Your task to perform on an android device: change keyboard looks Image 0: 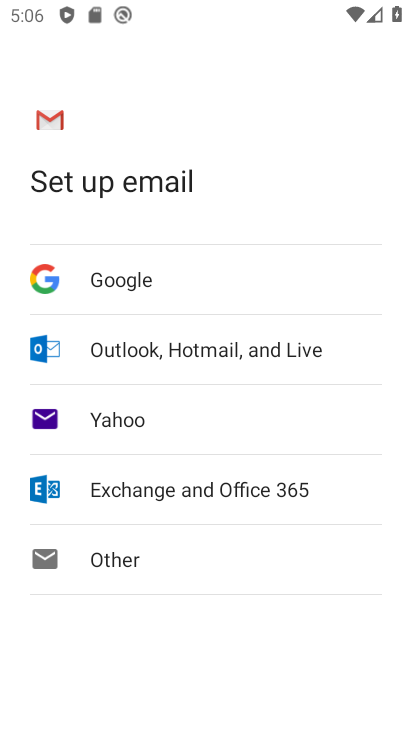
Step 0: press home button
Your task to perform on an android device: change keyboard looks Image 1: 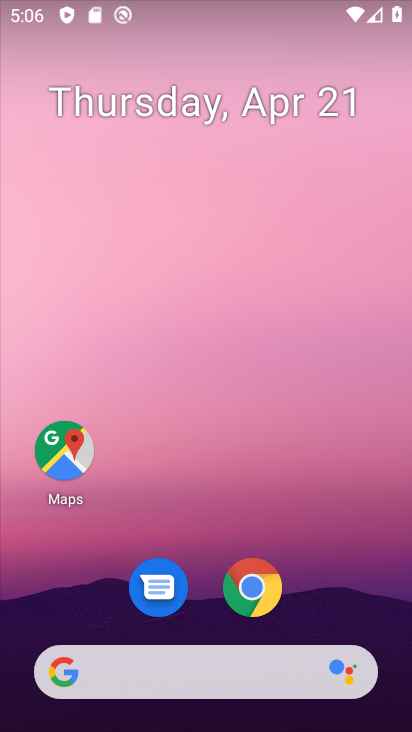
Step 1: drag from (212, 621) to (212, 19)
Your task to perform on an android device: change keyboard looks Image 2: 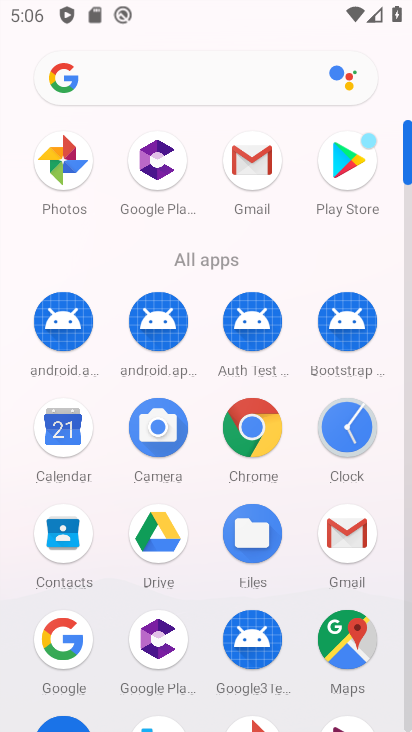
Step 2: drag from (203, 505) to (192, 110)
Your task to perform on an android device: change keyboard looks Image 3: 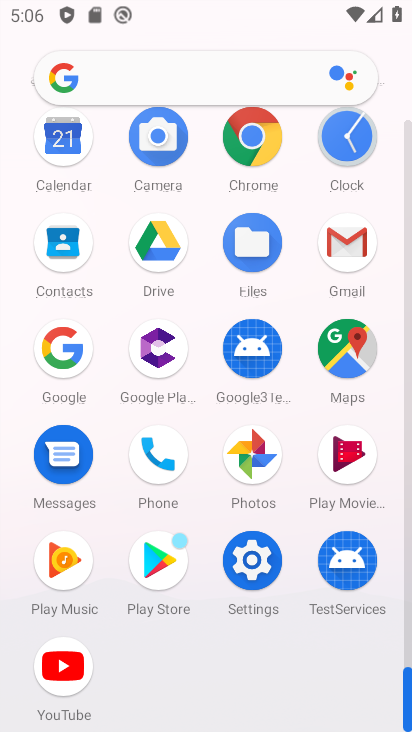
Step 3: click (248, 554)
Your task to perform on an android device: change keyboard looks Image 4: 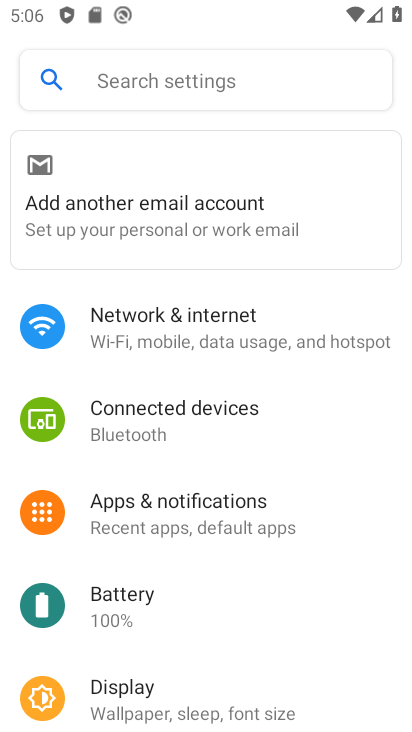
Step 4: drag from (222, 641) to (219, 168)
Your task to perform on an android device: change keyboard looks Image 5: 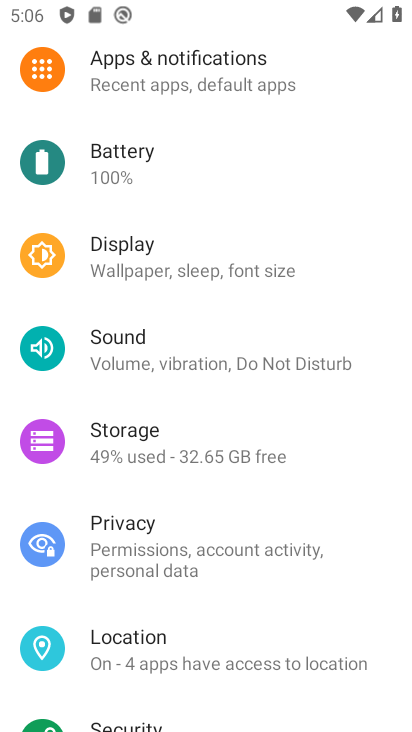
Step 5: drag from (197, 663) to (230, 138)
Your task to perform on an android device: change keyboard looks Image 6: 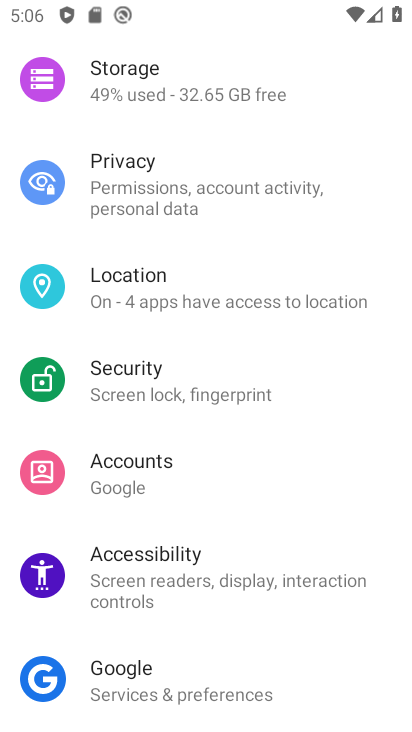
Step 6: drag from (189, 667) to (193, 134)
Your task to perform on an android device: change keyboard looks Image 7: 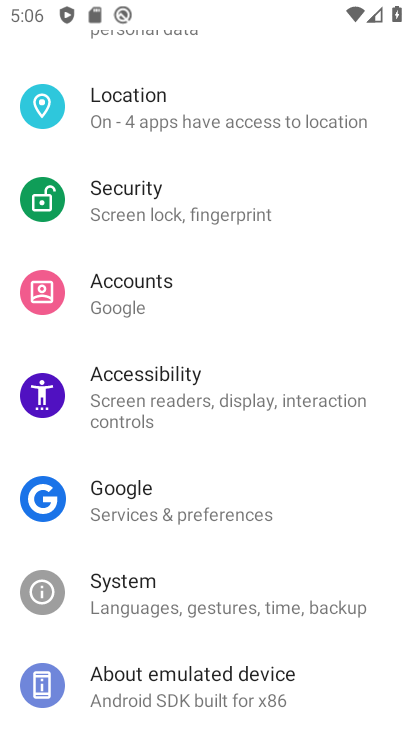
Step 7: click (174, 593)
Your task to perform on an android device: change keyboard looks Image 8: 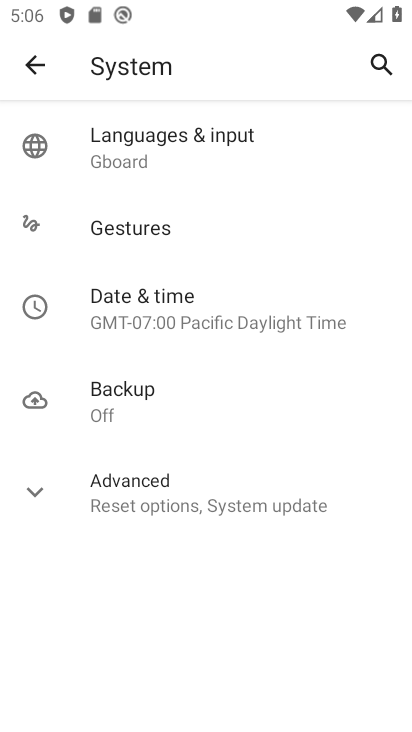
Step 8: click (151, 148)
Your task to perform on an android device: change keyboard looks Image 9: 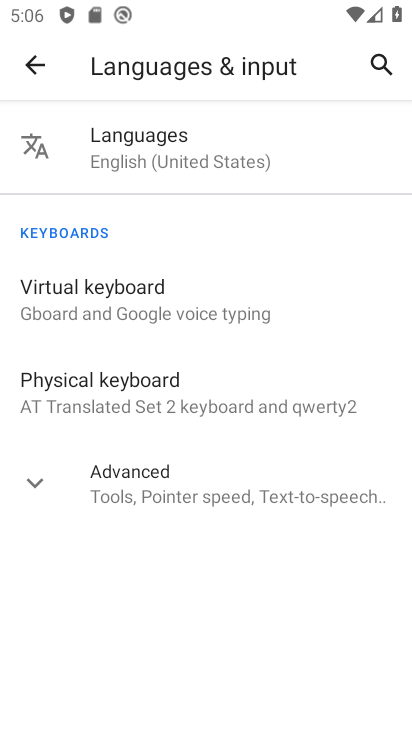
Step 9: click (164, 303)
Your task to perform on an android device: change keyboard looks Image 10: 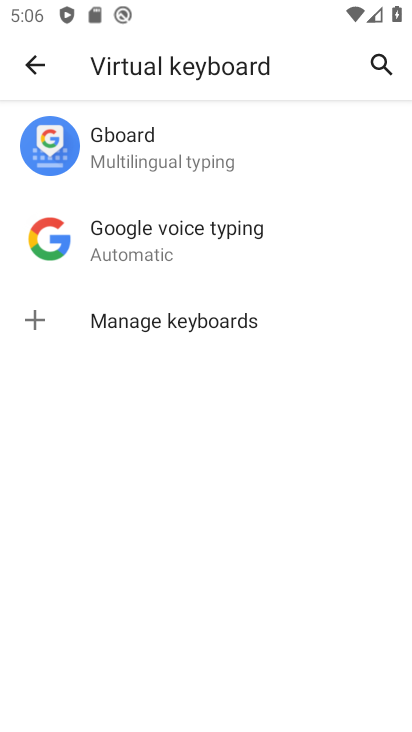
Step 10: click (165, 142)
Your task to perform on an android device: change keyboard looks Image 11: 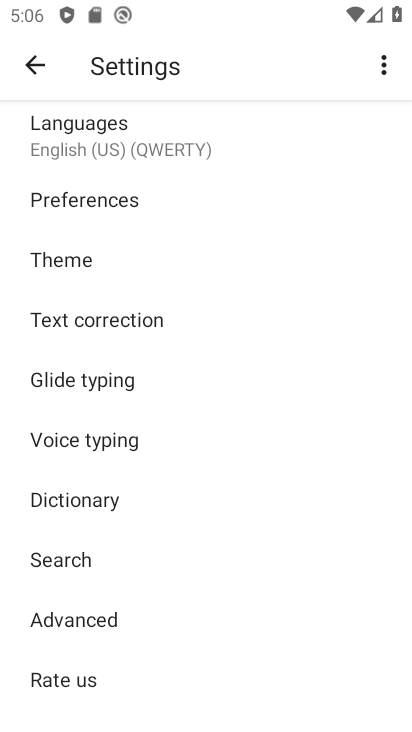
Step 11: click (91, 258)
Your task to perform on an android device: change keyboard looks Image 12: 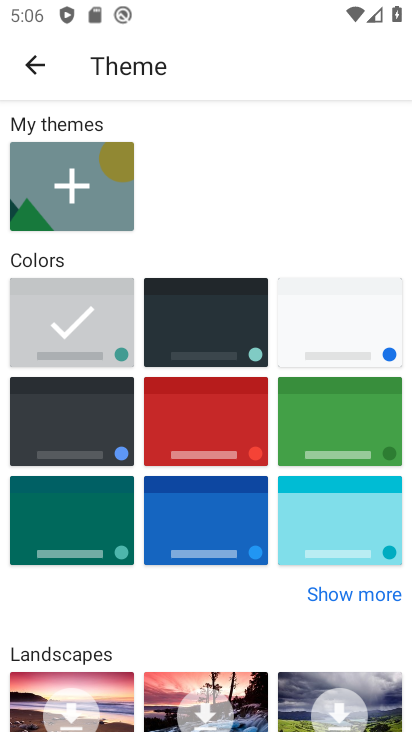
Step 12: click (187, 416)
Your task to perform on an android device: change keyboard looks Image 13: 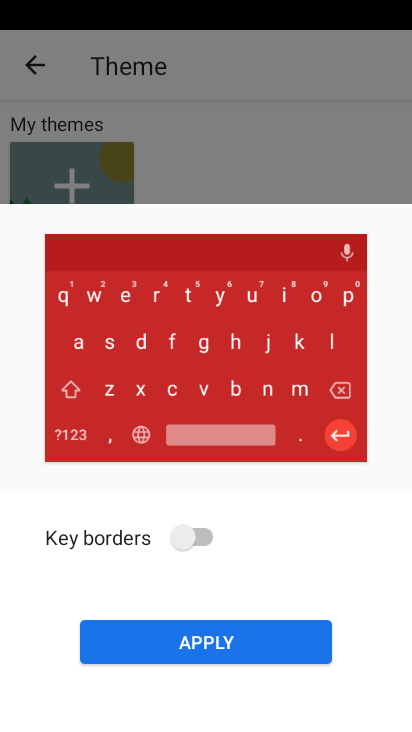
Step 13: click (210, 641)
Your task to perform on an android device: change keyboard looks Image 14: 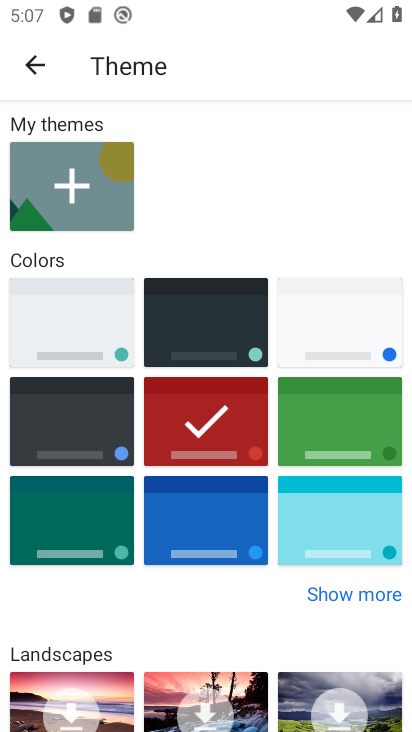
Step 14: task complete